Your task to perform on an android device: What's the weather? Image 0: 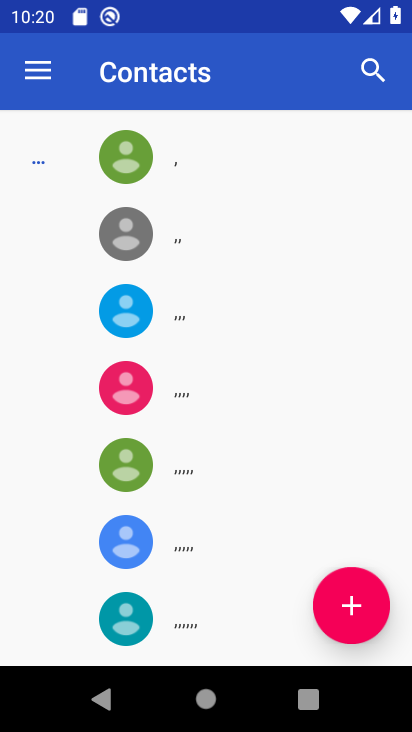
Step 0: press home button
Your task to perform on an android device: What's the weather? Image 1: 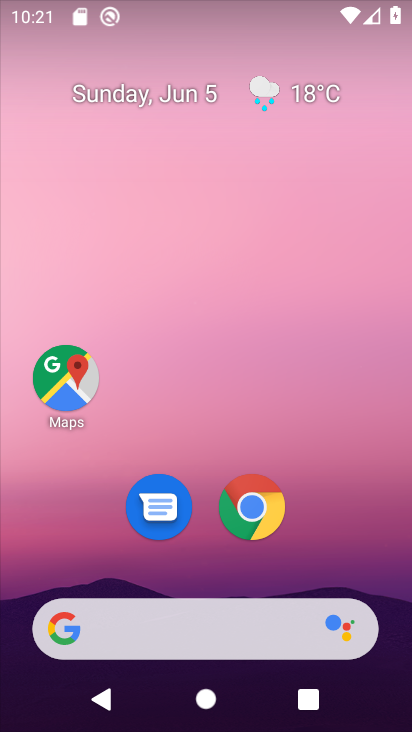
Step 1: drag from (194, 580) to (148, 16)
Your task to perform on an android device: What's the weather? Image 2: 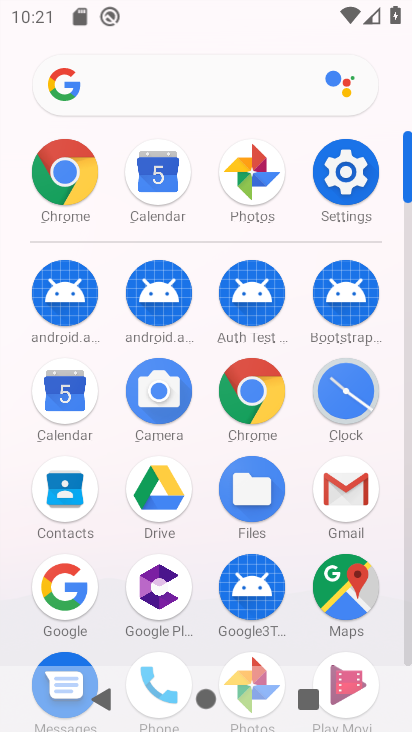
Step 2: press home button
Your task to perform on an android device: What's the weather? Image 3: 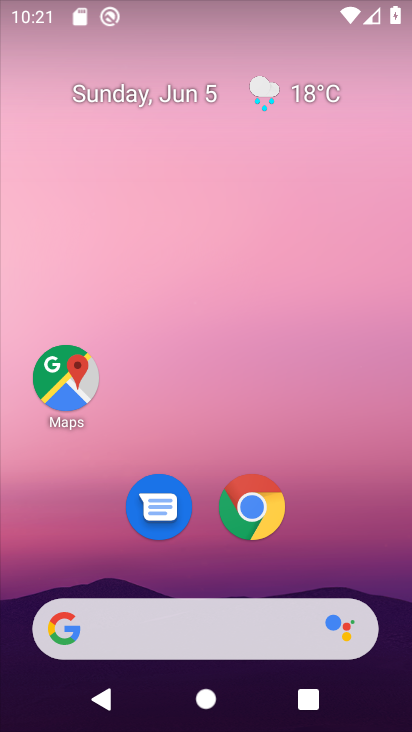
Step 3: click (288, 95)
Your task to perform on an android device: What's the weather? Image 4: 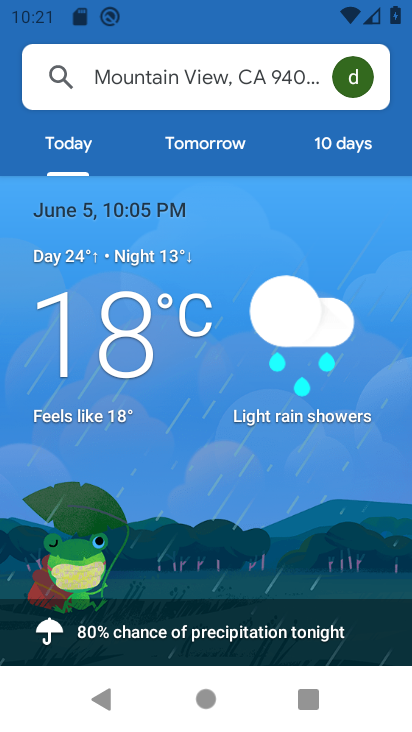
Step 4: task complete